Your task to perform on an android device: What's the weather? Image 0: 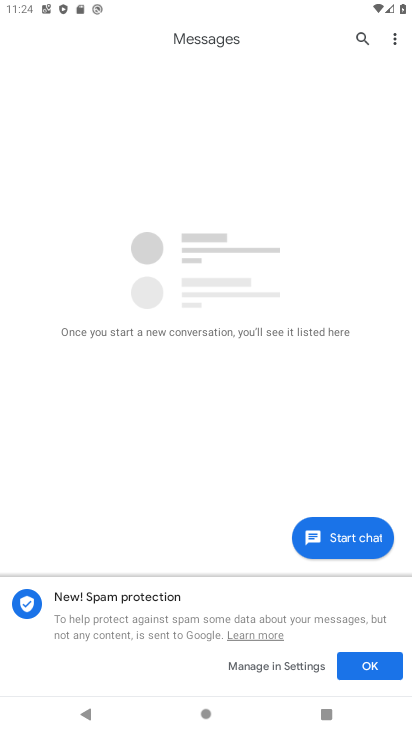
Step 0: press home button
Your task to perform on an android device: What's the weather? Image 1: 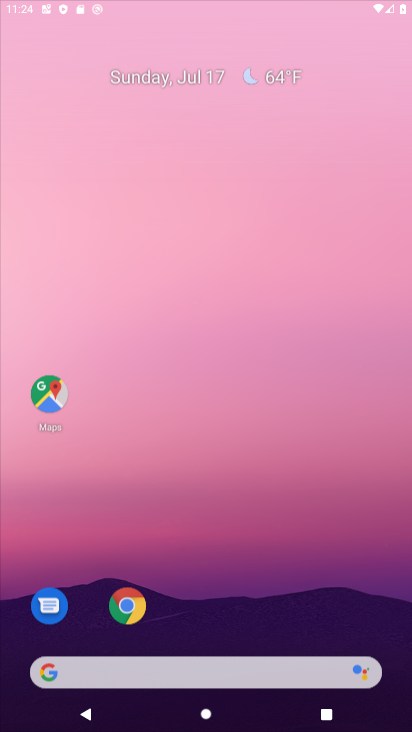
Step 1: drag from (370, 688) to (251, 0)
Your task to perform on an android device: What's the weather? Image 2: 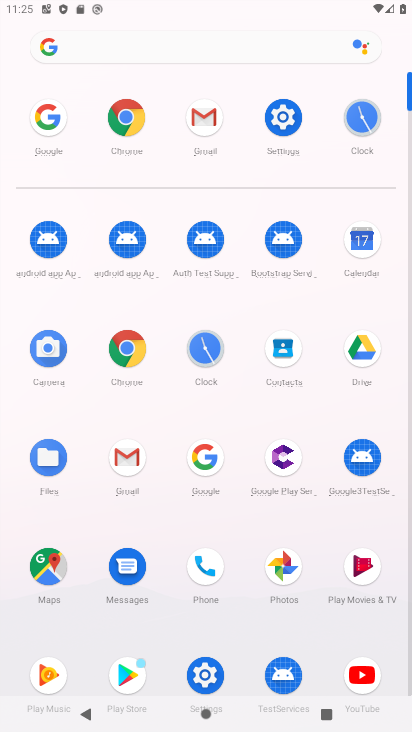
Step 2: click (208, 451)
Your task to perform on an android device: What's the weather? Image 3: 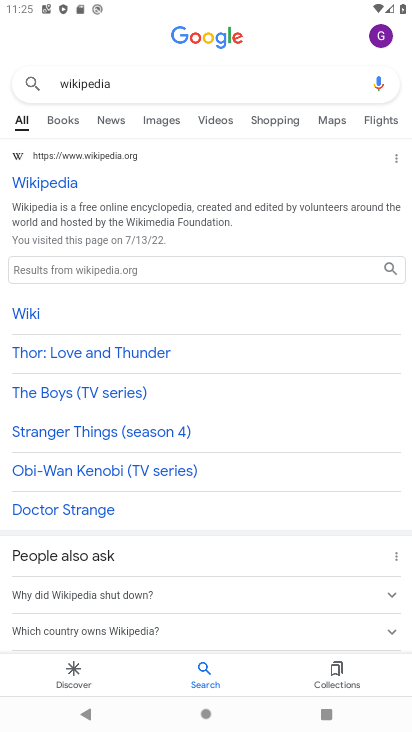
Step 3: press back button
Your task to perform on an android device: What's the weather? Image 4: 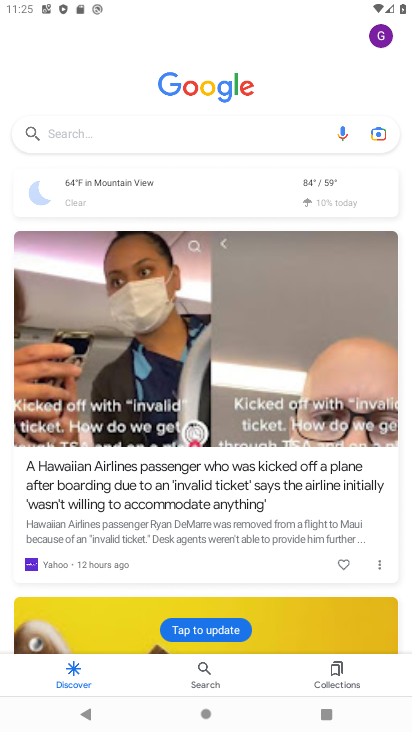
Step 4: click (112, 131)
Your task to perform on an android device: What's the weather? Image 5: 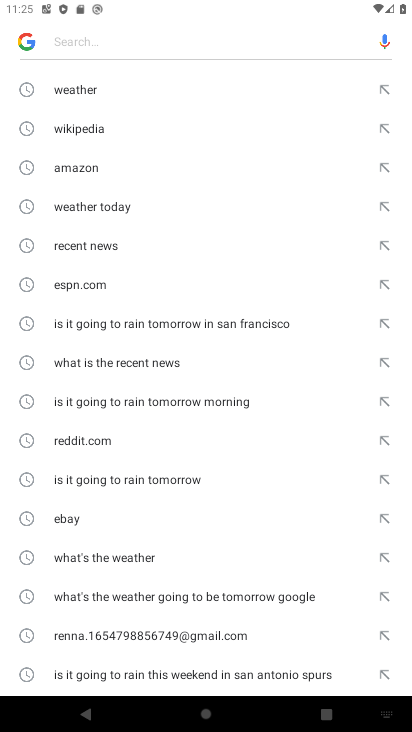
Step 5: click (76, 74)
Your task to perform on an android device: What's the weather? Image 6: 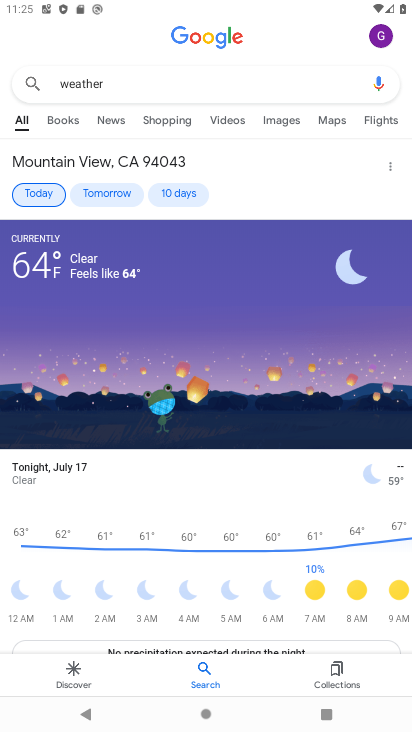
Step 6: task complete